Your task to perform on an android device: Open Reddit.com Image 0: 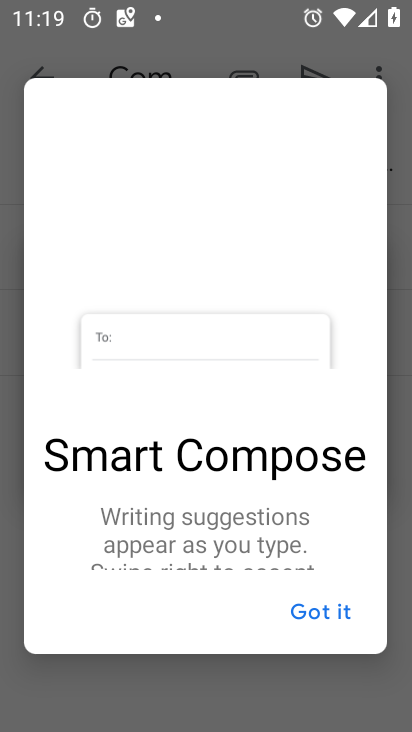
Step 0: press home button
Your task to perform on an android device: Open Reddit.com Image 1: 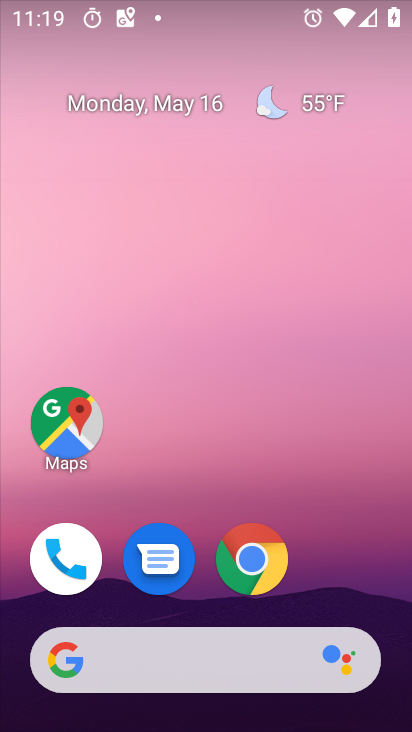
Step 1: click (260, 561)
Your task to perform on an android device: Open Reddit.com Image 2: 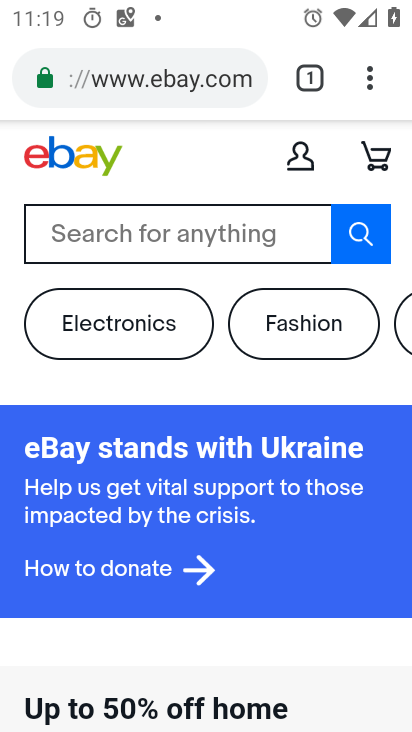
Step 2: click (217, 90)
Your task to perform on an android device: Open Reddit.com Image 3: 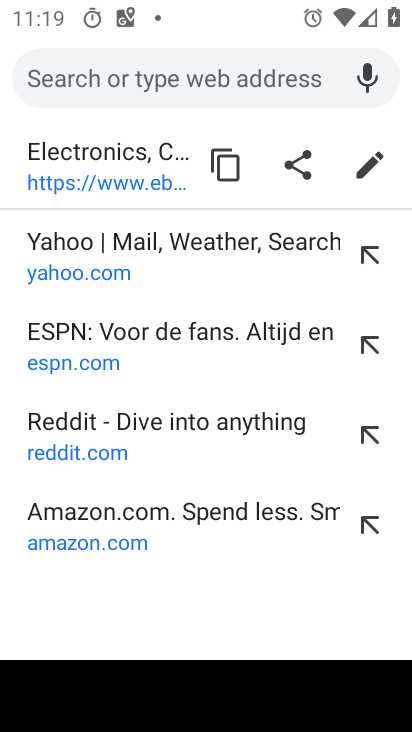
Step 3: click (101, 451)
Your task to perform on an android device: Open Reddit.com Image 4: 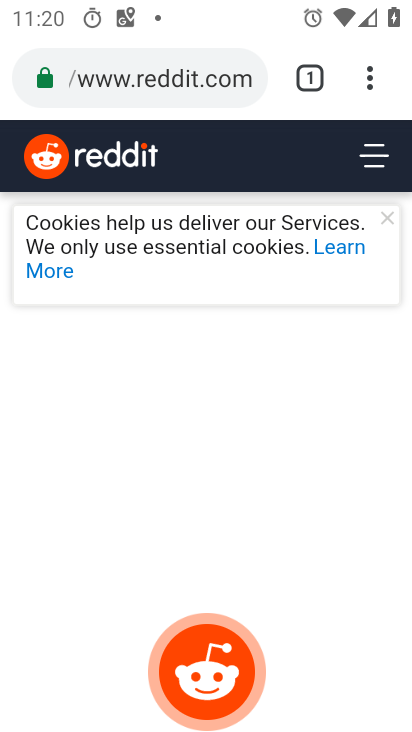
Step 4: task complete